Your task to perform on an android device: turn on improve location accuracy Image 0: 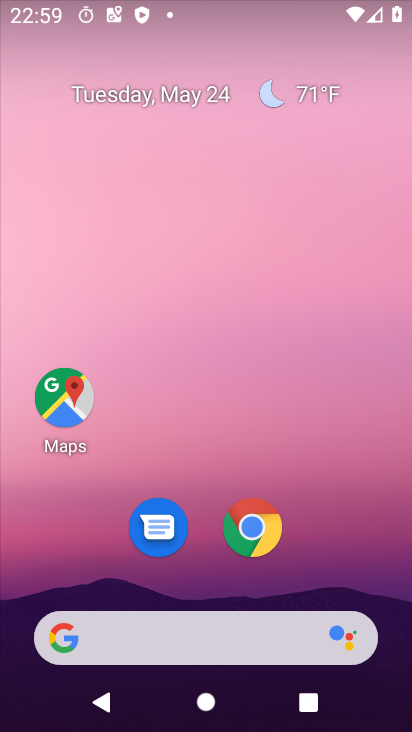
Step 0: drag from (339, 562) to (287, 20)
Your task to perform on an android device: turn on improve location accuracy Image 1: 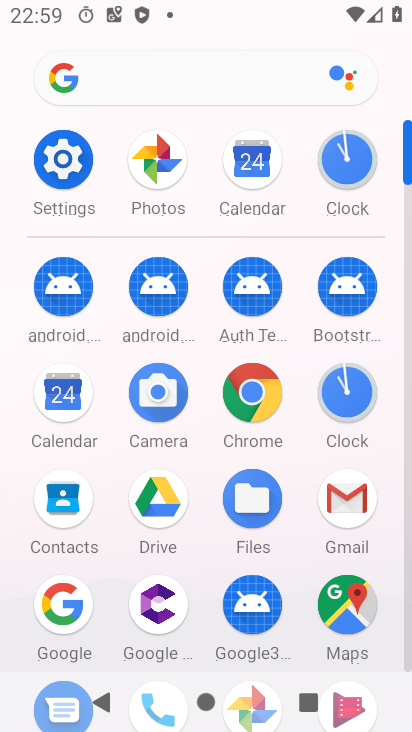
Step 1: click (57, 166)
Your task to perform on an android device: turn on improve location accuracy Image 2: 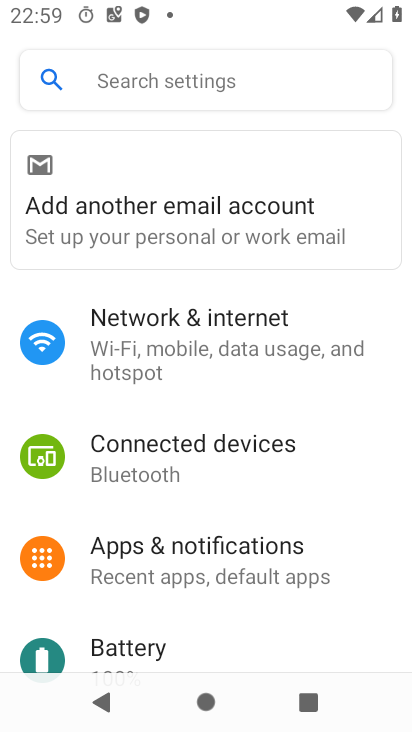
Step 2: drag from (206, 619) to (205, 245)
Your task to perform on an android device: turn on improve location accuracy Image 3: 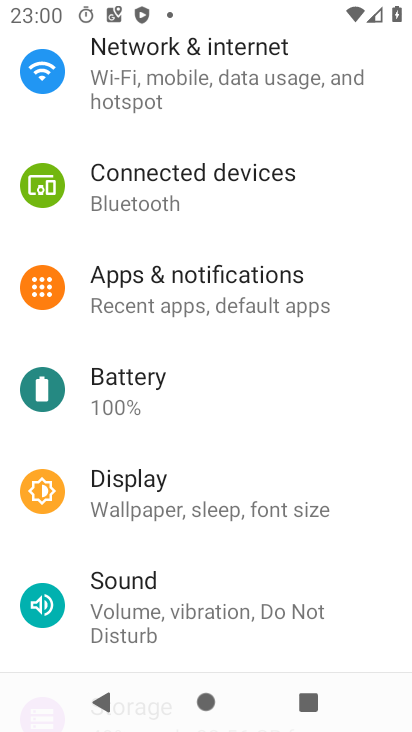
Step 3: drag from (251, 608) to (248, 193)
Your task to perform on an android device: turn on improve location accuracy Image 4: 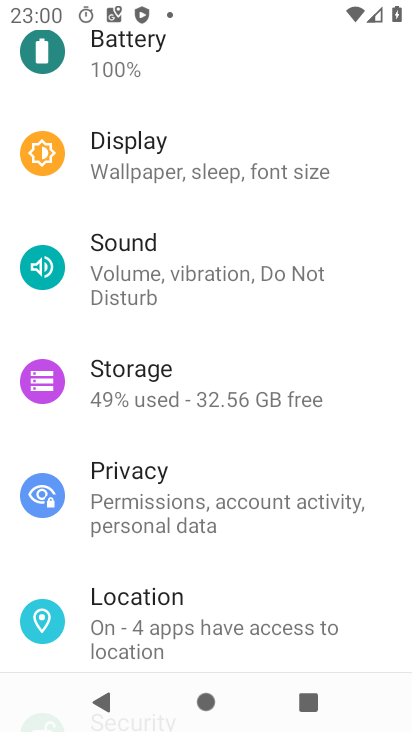
Step 4: click (227, 634)
Your task to perform on an android device: turn on improve location accuracy Image 5: 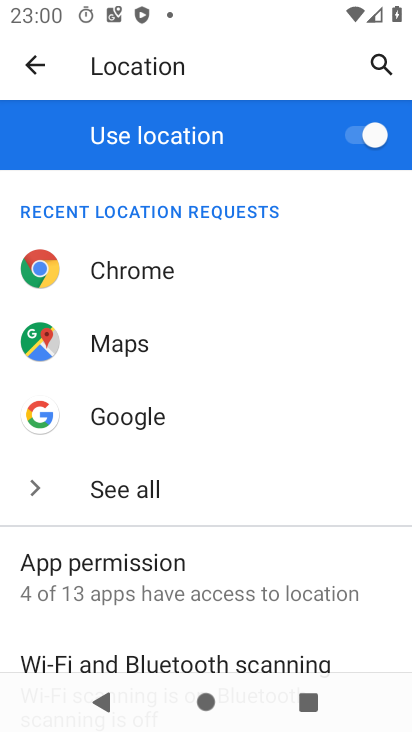
Step 5: drag from (236, 649) to (224, 271)
Your task to perform on an android device: turn on improve location accuracy Image 6: 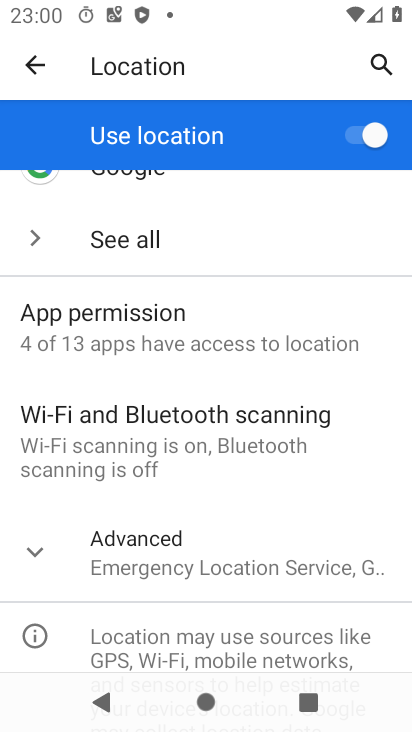
Step 6: click (153, 555)
Your task to perform on an android device: turn on improve location accuracy Image 7: 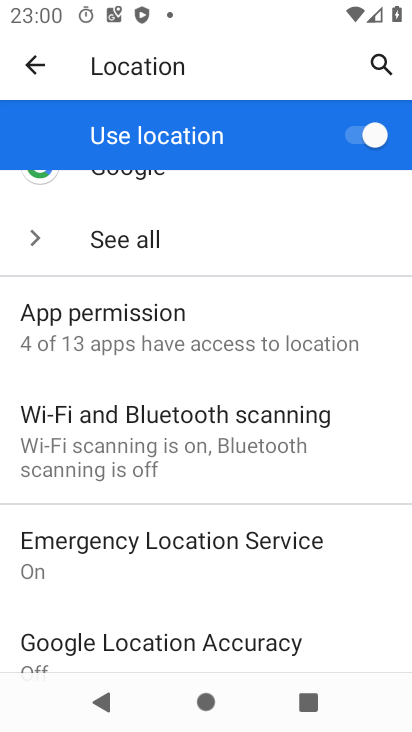
Step 7: click (264, 623)
Your task to perform on an android device: turn on improve location accuracy Image 8: 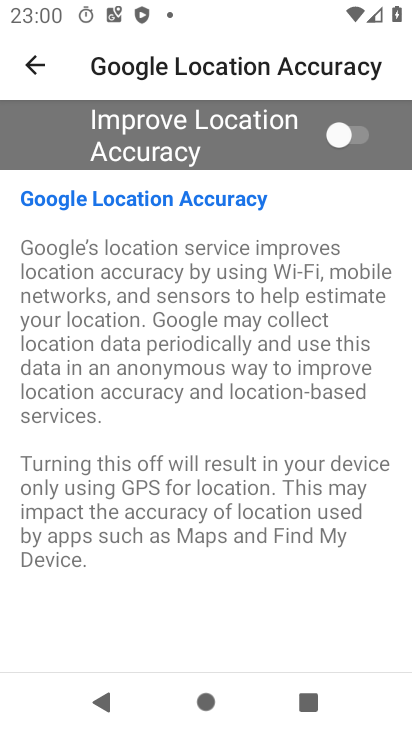
Step 8: click (360, 127)
Your task to perform on an android device: turn on improve location accuracy Image 9: 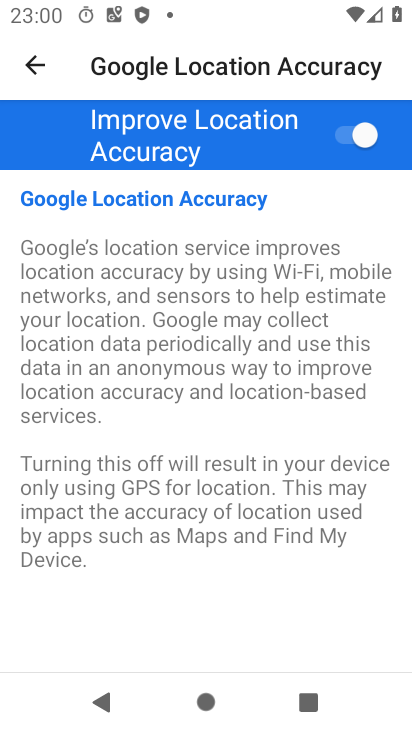
Step 9: task complete